Your task to perform on an android device: Open Google Chrome Image 0: 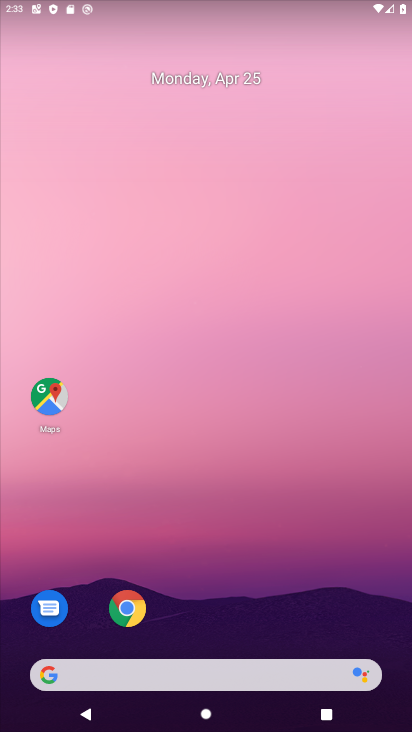
Step 0: drag from (360, 581) to (377, 102)
Your task to perform on an android device: Open Google Chrome Image 1: 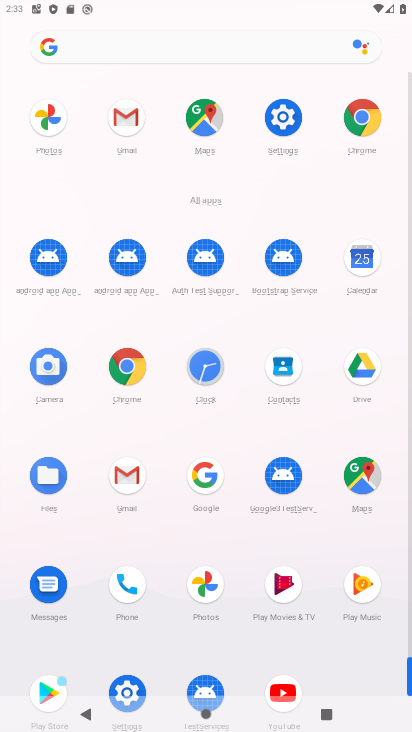
Step 1: click (367, 102)
Your task to perform on an android device: Open Google Chrome Image 2: 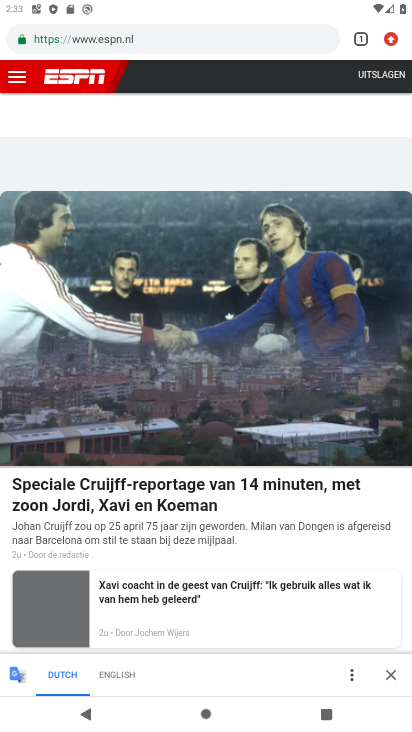
Step 2: task complete